Your task to perform on an android device: Go to privacy settings Image 0: 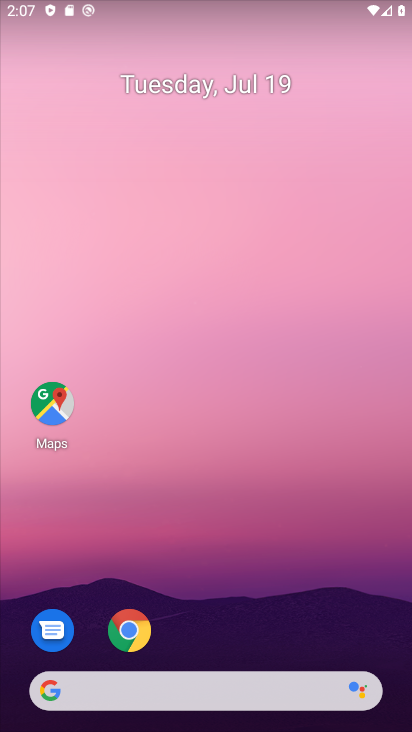
Step 0: drag from (382, 619) to (340, 157)
Your task to perform on an android device: Go to privacy settings Image 1: 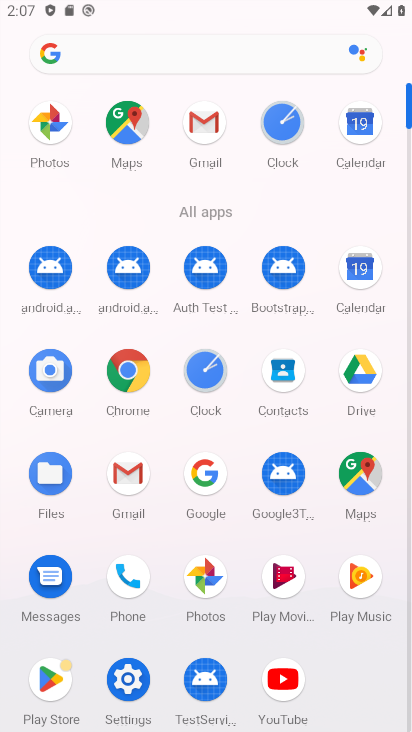
Step 1: click (128, 679)
Your task to perform on an android device: Go to privacy settings Image 2: 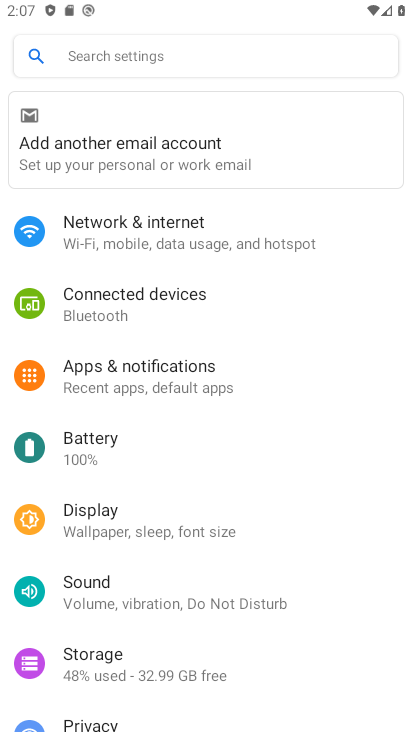
Step 2: drag from (319, 632) to (300, 209)
Your task to perform on an android device: Go to privacy settings Image 3: 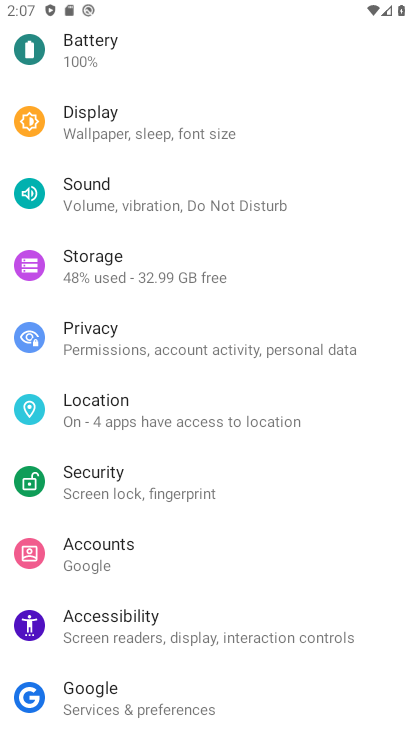
Step 3: click (84, 331)
Your task to perform on an android device: Go to privacy settings Image 4: 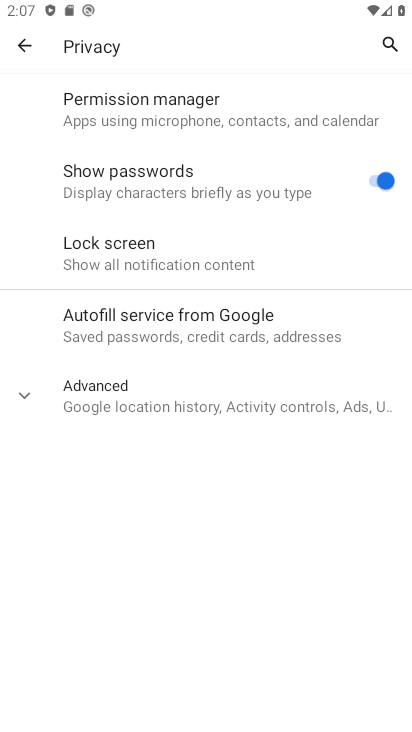
Step 4: click (21, 392)
Your task to perform on an android device: Go to privacy settings Image 5: 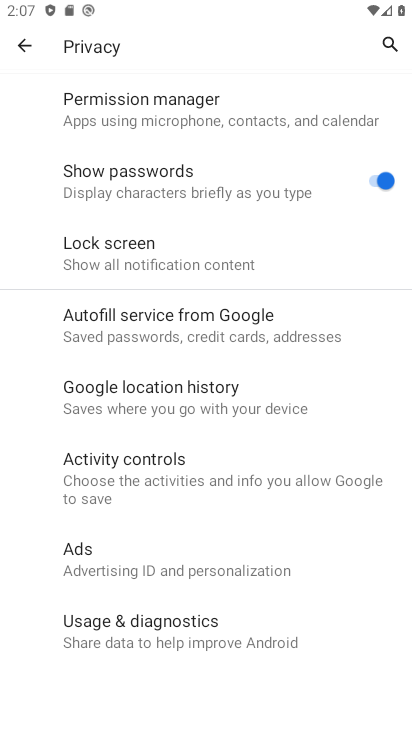
Step 5: task complete